Your task to perform on an android device: Check the settings for the Twitter app Image 0: 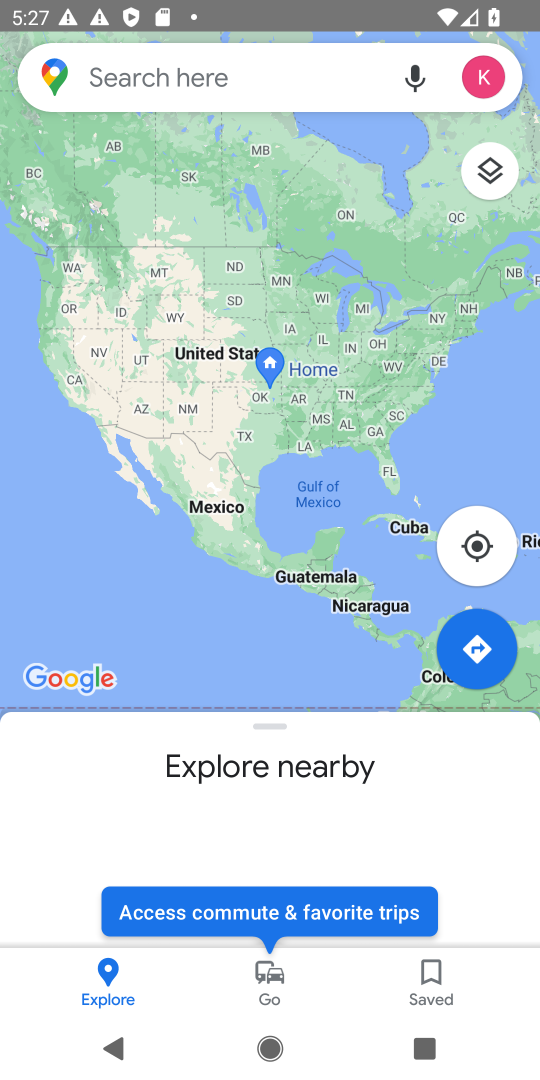
Step 0: press home button
Your task to perform on an android device: Check the settings for the Twitter app Image 1: 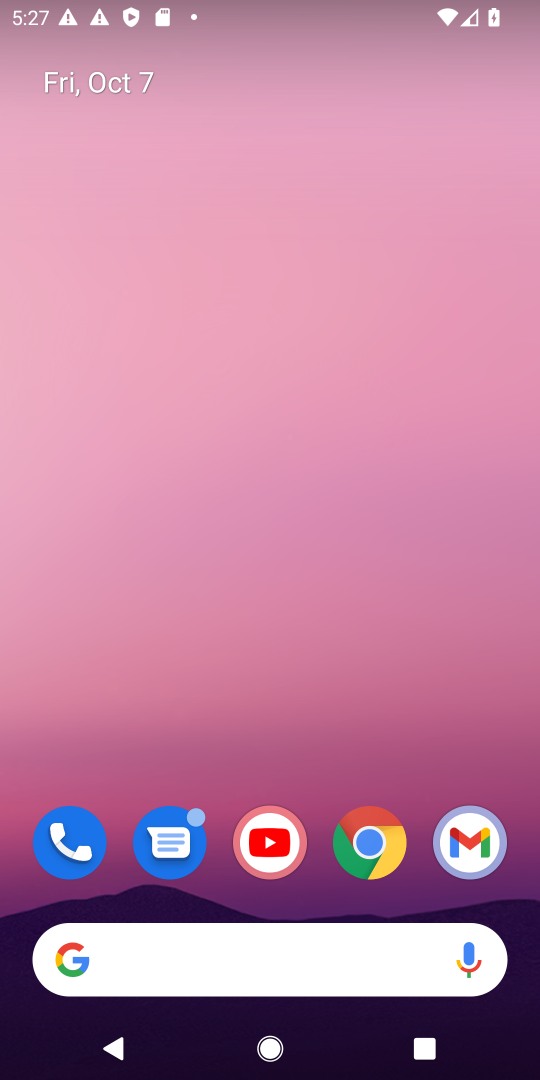
Step 1: task complete